Your task to perform on an android device: toggle translation in the chrome app Image 0: 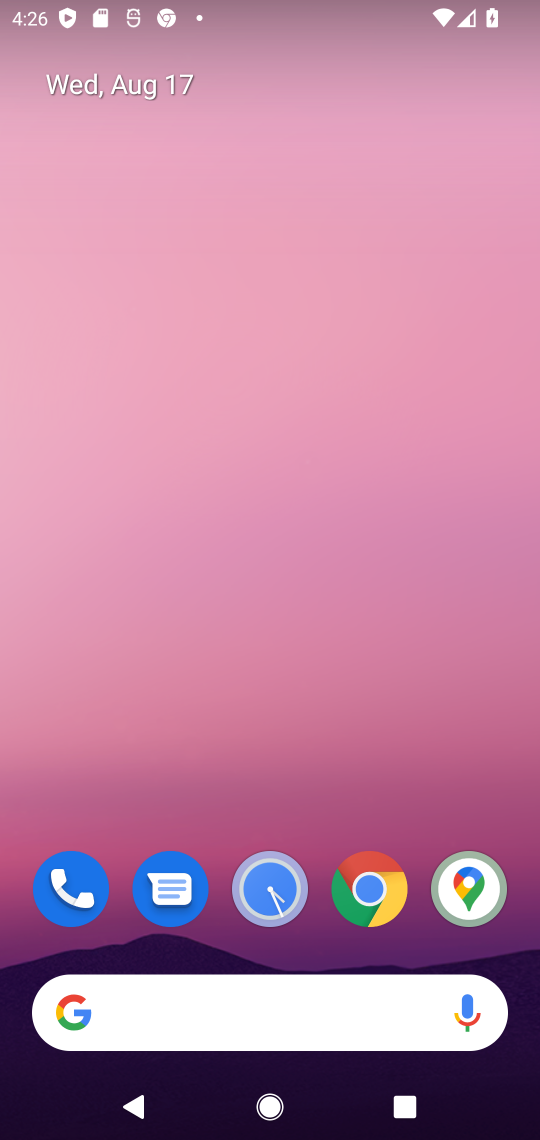
Step 0: click (370, 880)
Your task to perform on an android device: toggle translation in the chrome app Image 1: 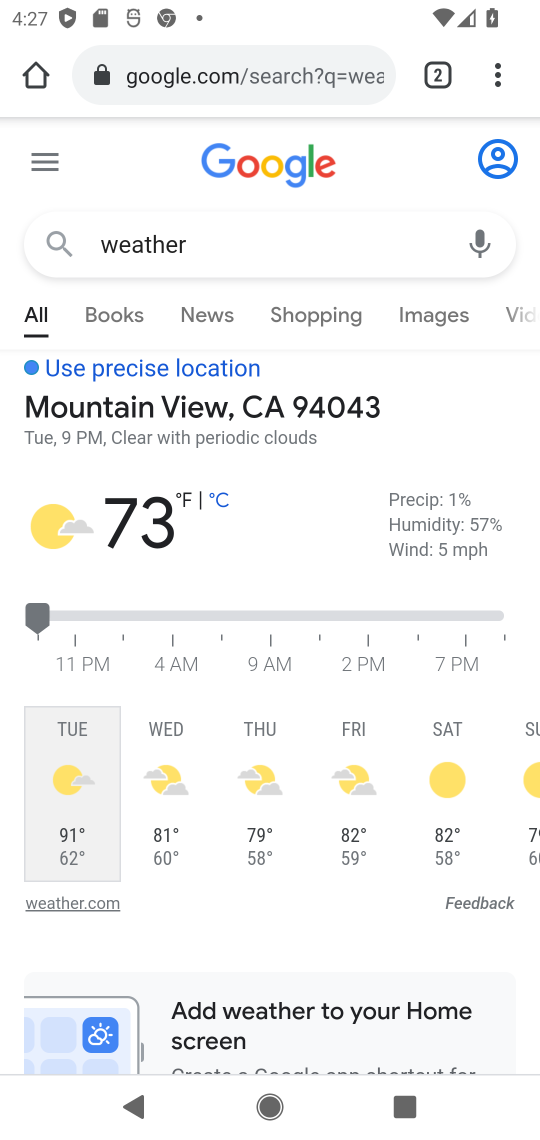
Step 1: click (498, 80)
Your task to perform on an android device: toggle translation in the chrome app Image 2: 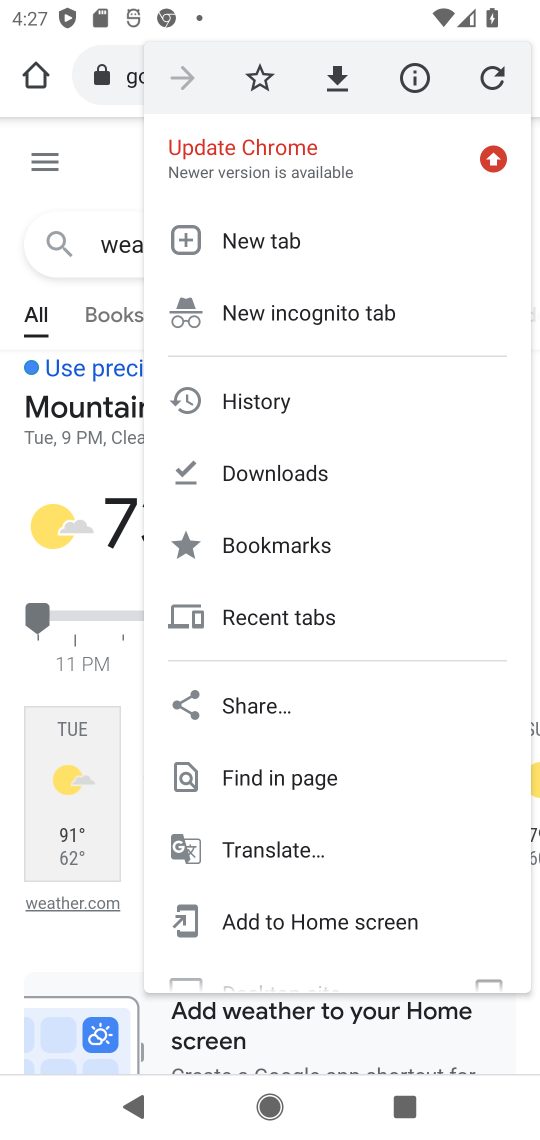
Step 2: drag from (373, 855) to (371, 256)
Your task to perform on an android device: toggle translation in the chrome app Image 3: 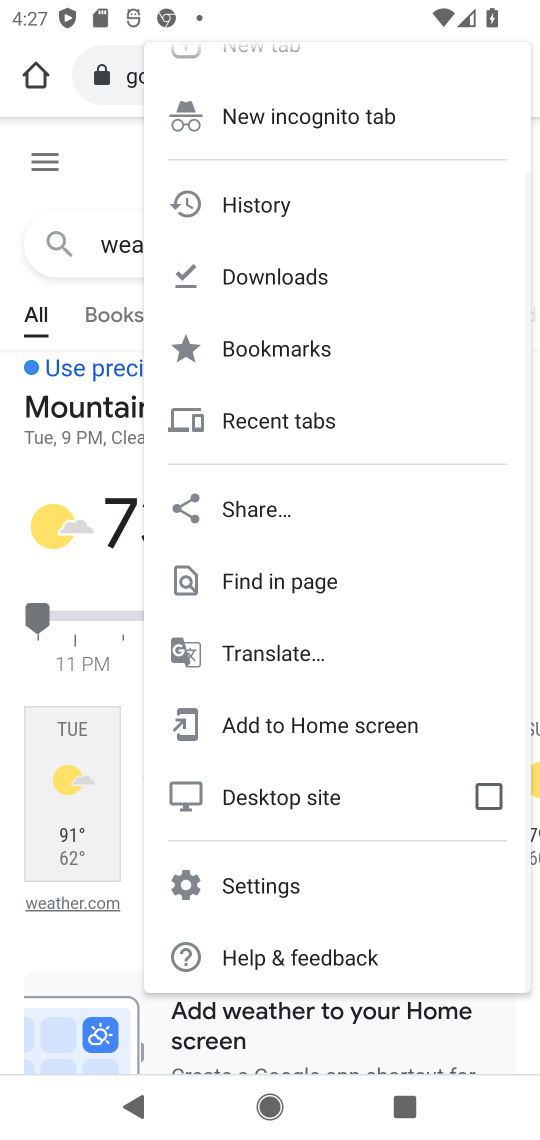
Step 3: click (268, 877)
Your task to perform on an android device: toggle translation in the chrome app Image 4: 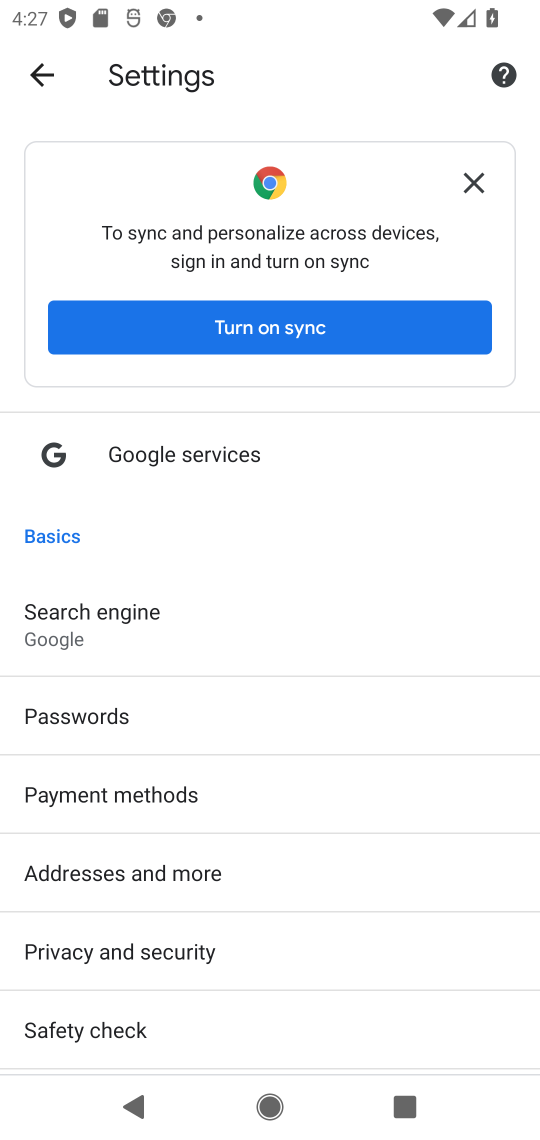
Step 4: drag from (311, 944) to (321, 372)
Your task to perform on an android device: toggle translation in the chrome app Image 5: 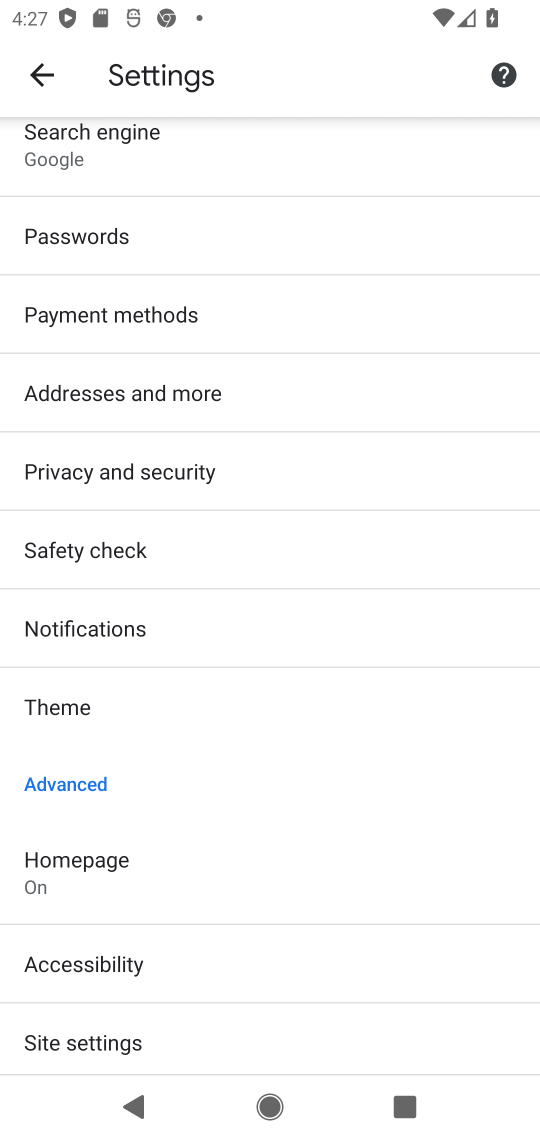
Step 5: drag from (236, 929) to (212, 354)
Your task to perform on an android device: toggle translation in the chrome app Image 6: 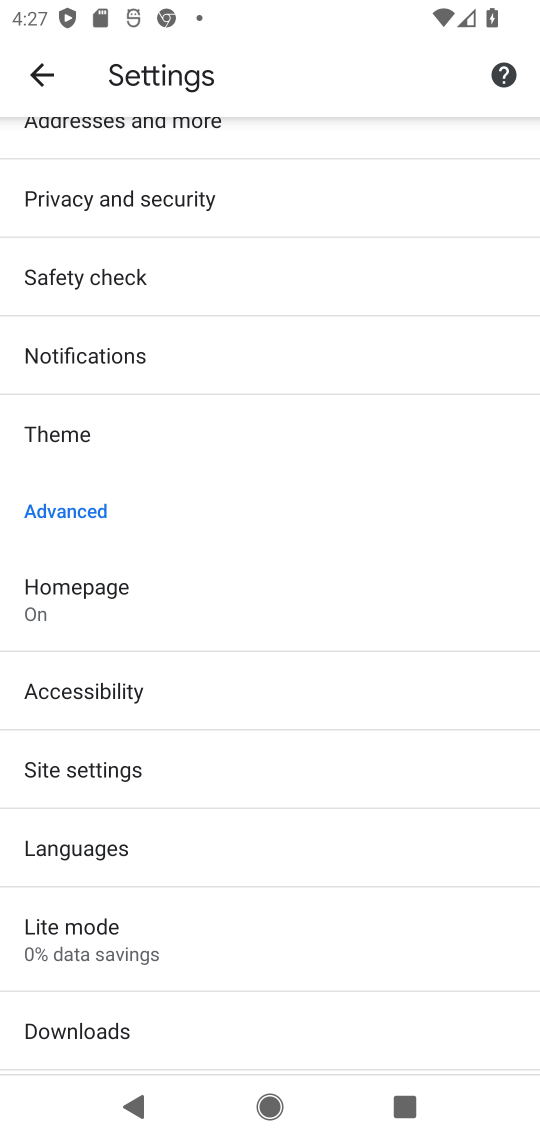
Step 6: click (95, 852)
Your task to perform on an android device: toggle translation in the chrome app Image 7: 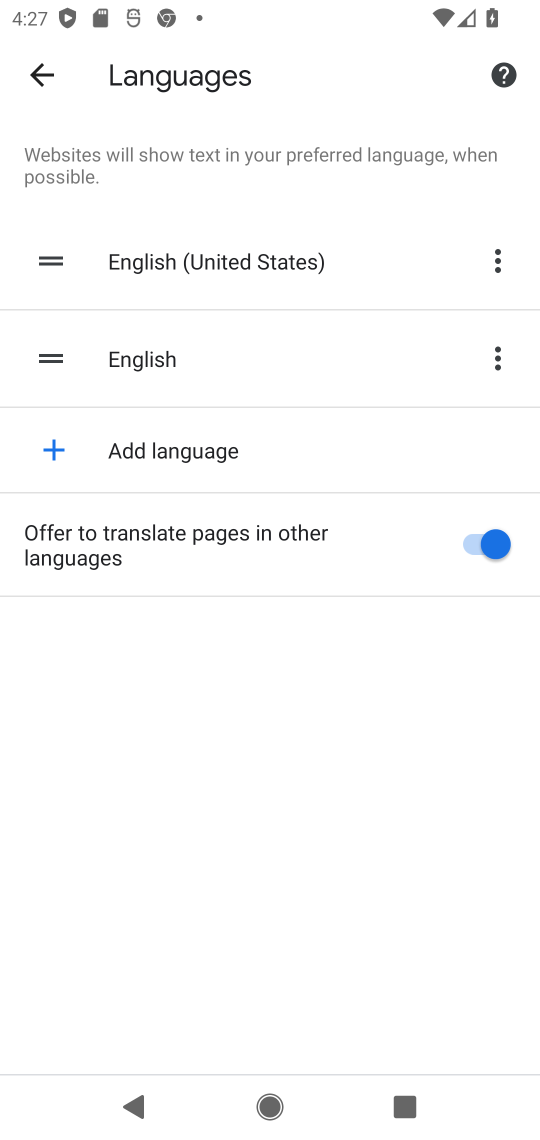
Step 7: click (493, 526)
Your task to perform on an android device: toggle translation in the chrome app Image 8: 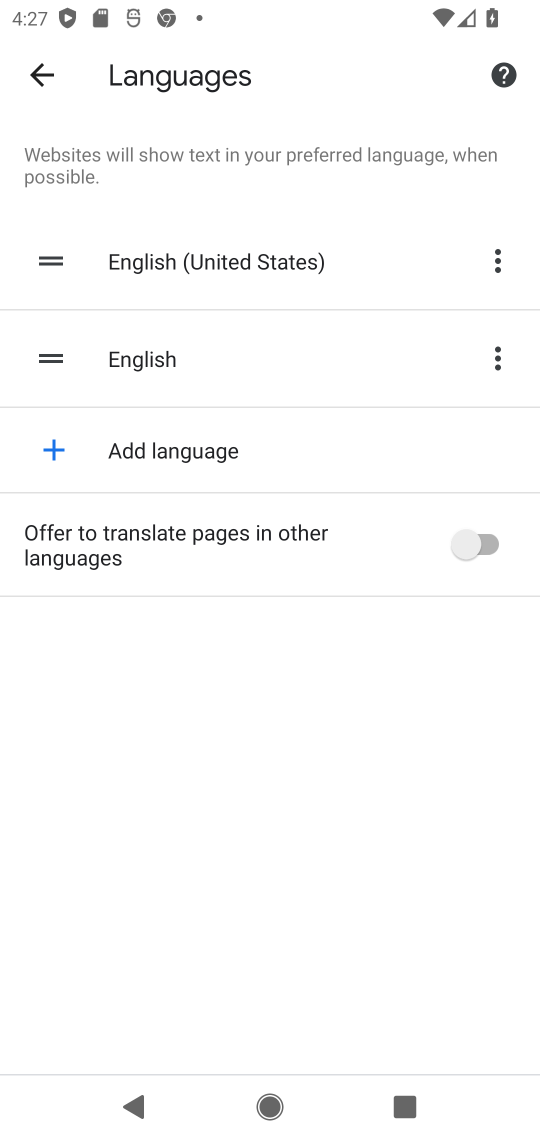
Step 8: task complete